Your task to perform on an android device: Clear the shopping cart on costco.com. Search for rayovac triple a on costco.com, select the first entry, and add it to the cart. Image 0: 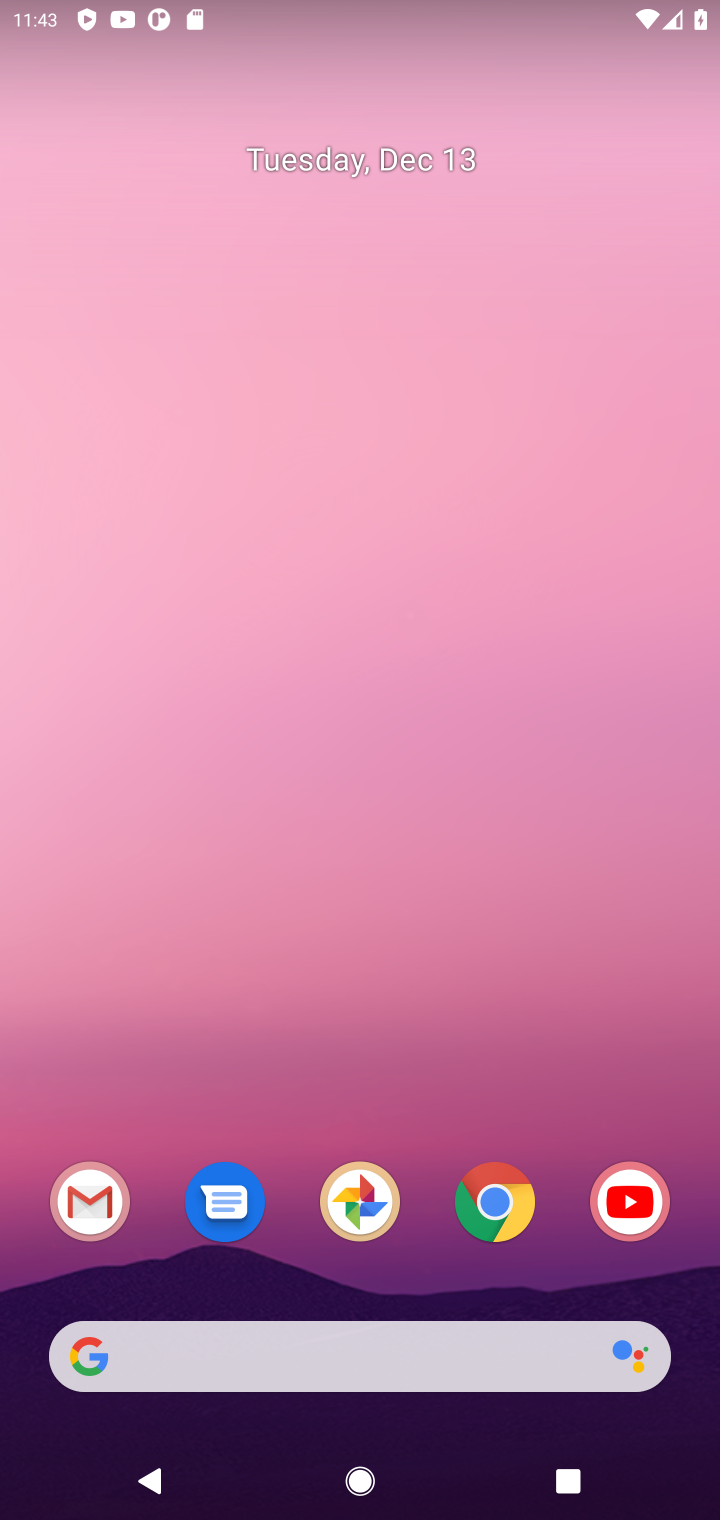
Step 0: click (492, 1215)
Your task to perform on an android device: Clear the shopping cart on costco.com. Search for rayovac triple a on costco.com, select the first entry, and add it to the cart. Image 1: 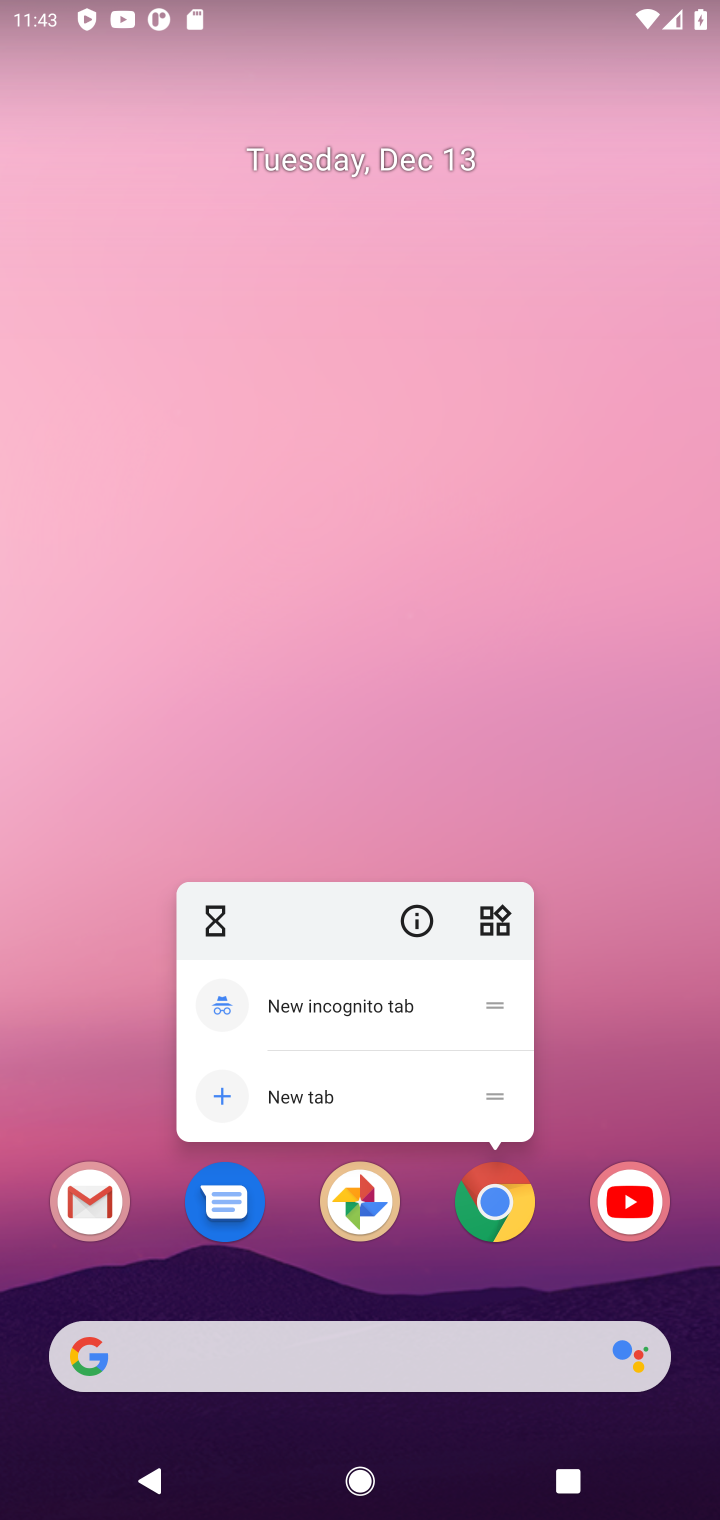
Step 1: click (500, 1196)
Your task to perform on an android device: Clear the shopping cart on costco.com. Search for rayovac triple a on costco.com, select the first entry, and add it to the cart. Image 2: 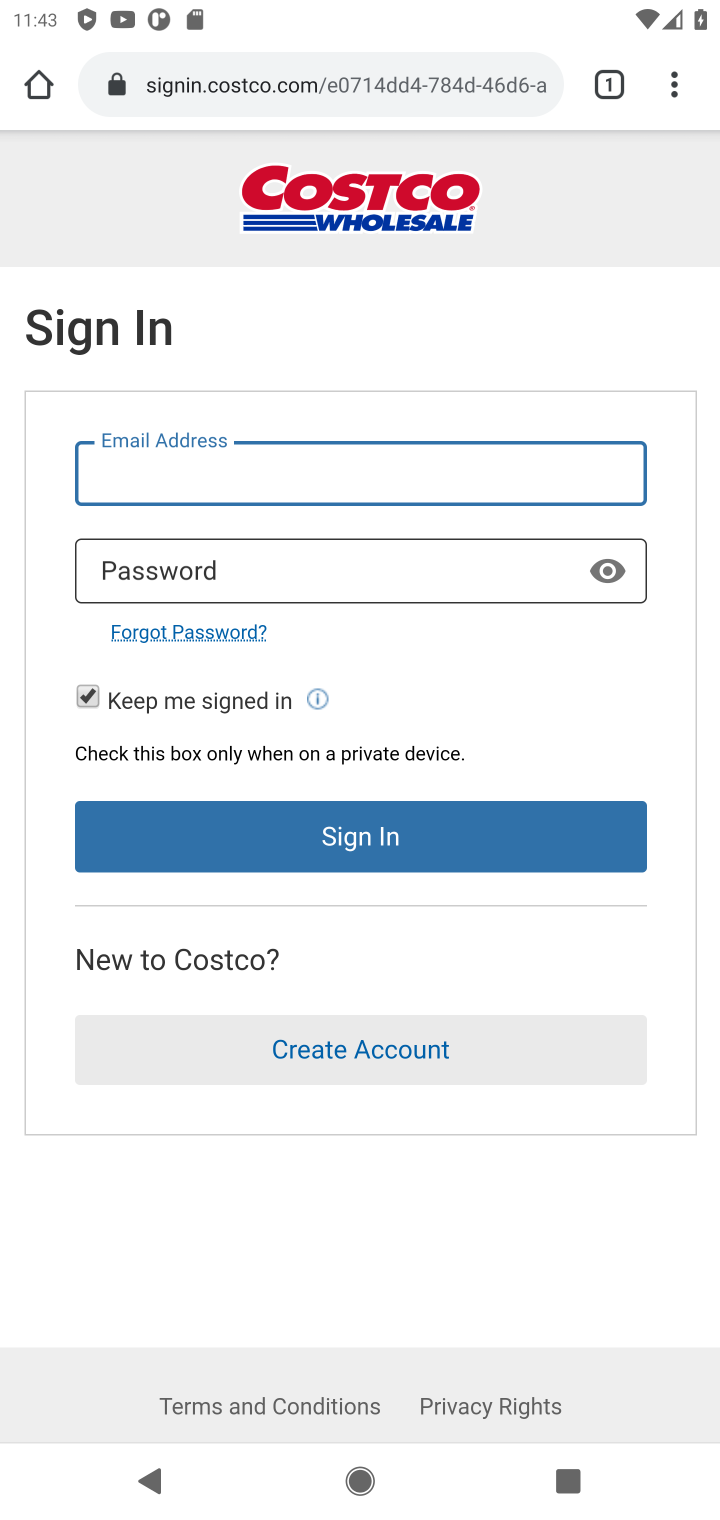
Step 2: click (382, 84)
Your task to perform on an android device: Clear the shopping cart on costco.com. Search for rayovac triple a on costco.com, select the first entry, and add it to the cart. Image 3: 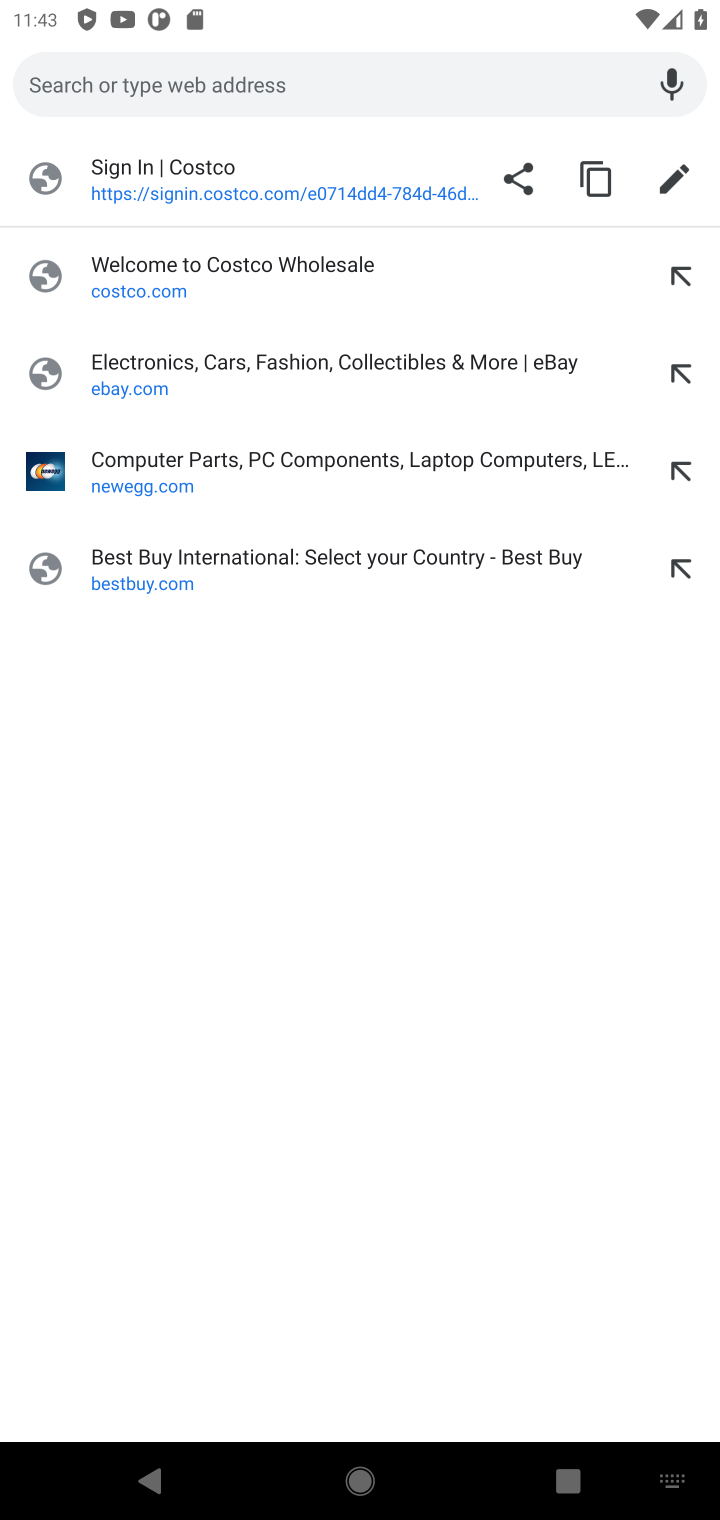
Step 3: click (207, 277)
Your task to perform on an android device: Clear the shopping cart on costco.com. Search for rayovac triple a on costco.com, select the first entry, and add it to the cart. Image 4: 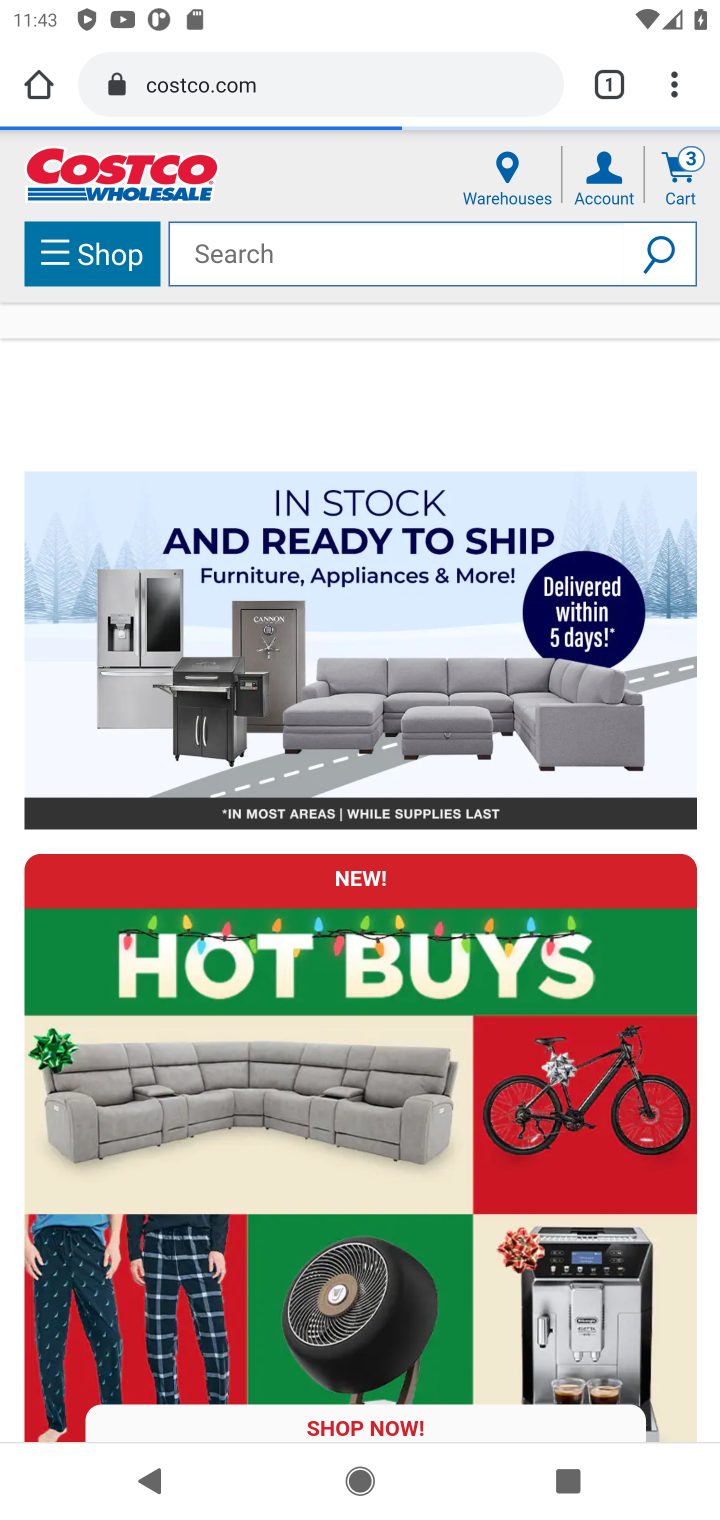
Step 4: click (677, 173)
Your task to perform on an android device: Clear the shopping cart on costco.com. Search for rayovac triple a on costco.com, select the first entry, and add it to the cart. Image 5: 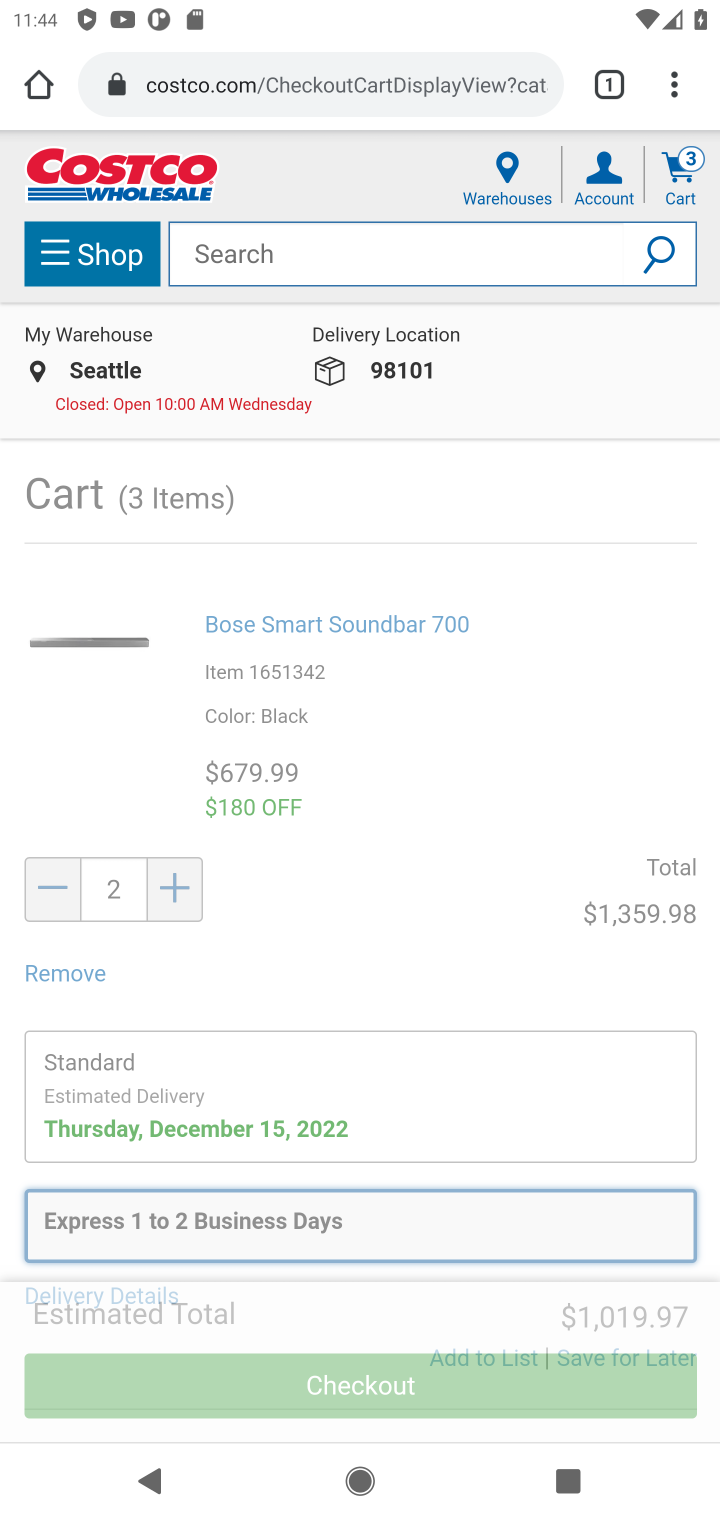
Step 5: click (55, 975)
Your task to perform on an android device: Clear the shopping cart on costco.com. Search for rayovac triple a on costco.com, select the first entry, and add it to the cart. Image 6: 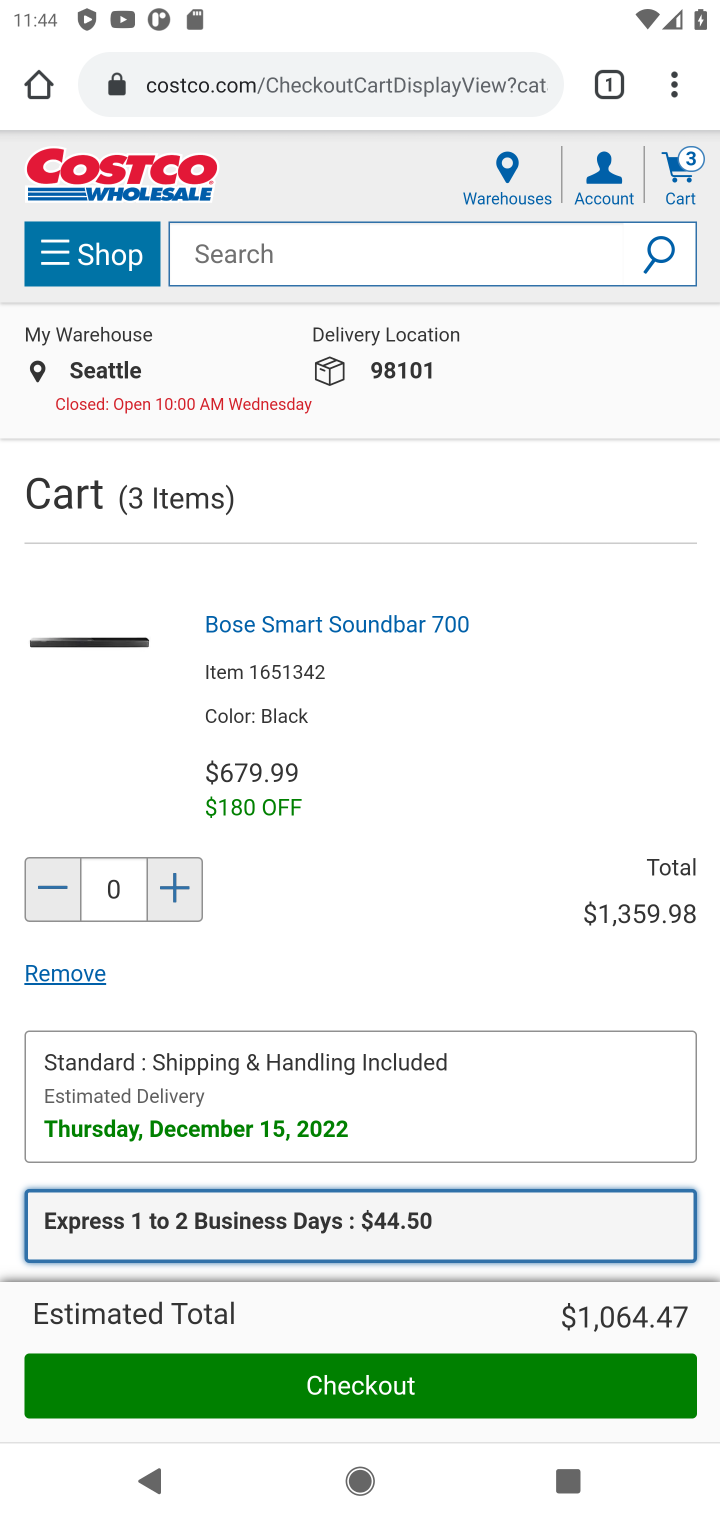
Step 6: click (55, 975)
Your task to perform on an android device: Clear the shopping cart on costco.com. Search for rayovac triple a on costco.com, select the first entry, and add it to the cart. Image 7: 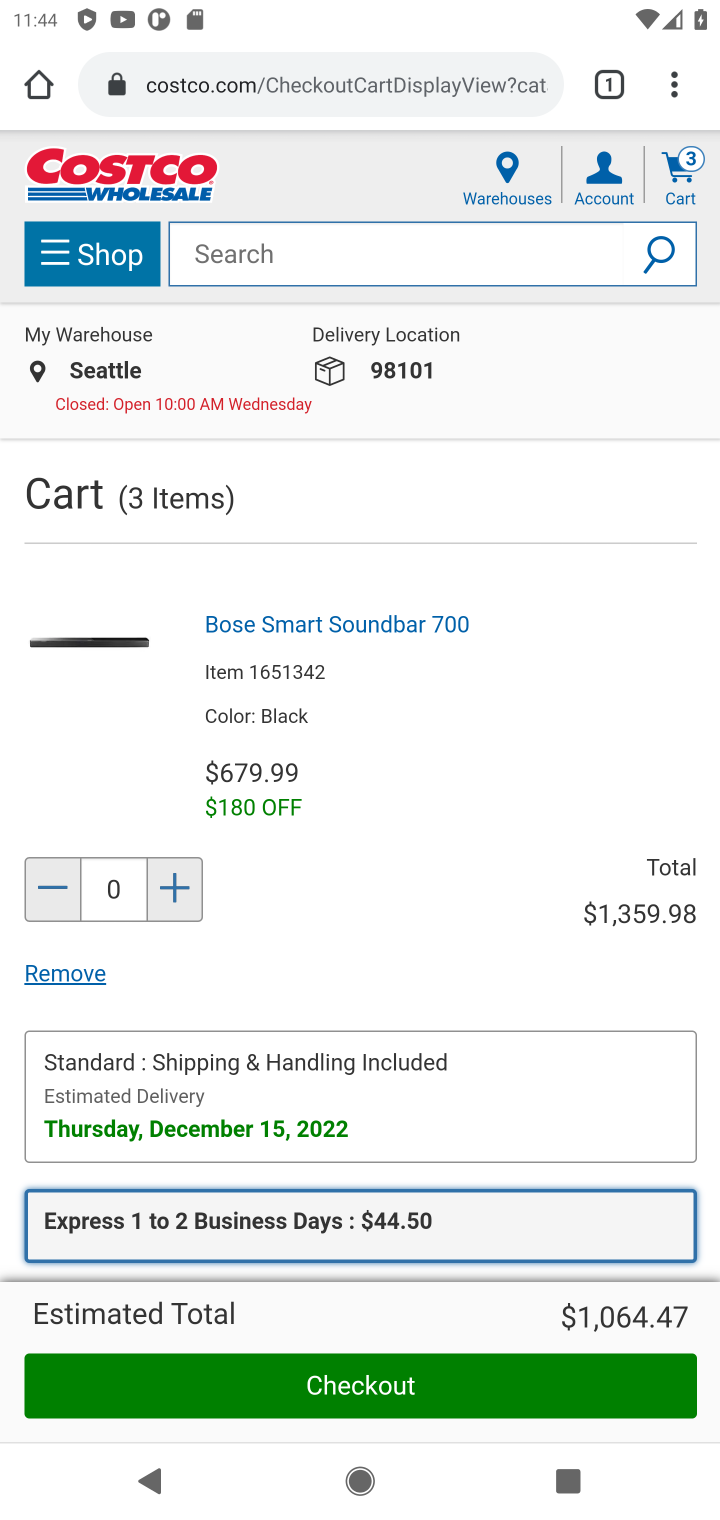
Step 7: click (55, 975)
Your task to perform on an android device: Clear the shopping cart on costco.com. Search for rayovac triple a on costco.com, select the first entry, and add it to the cart. Image 8: 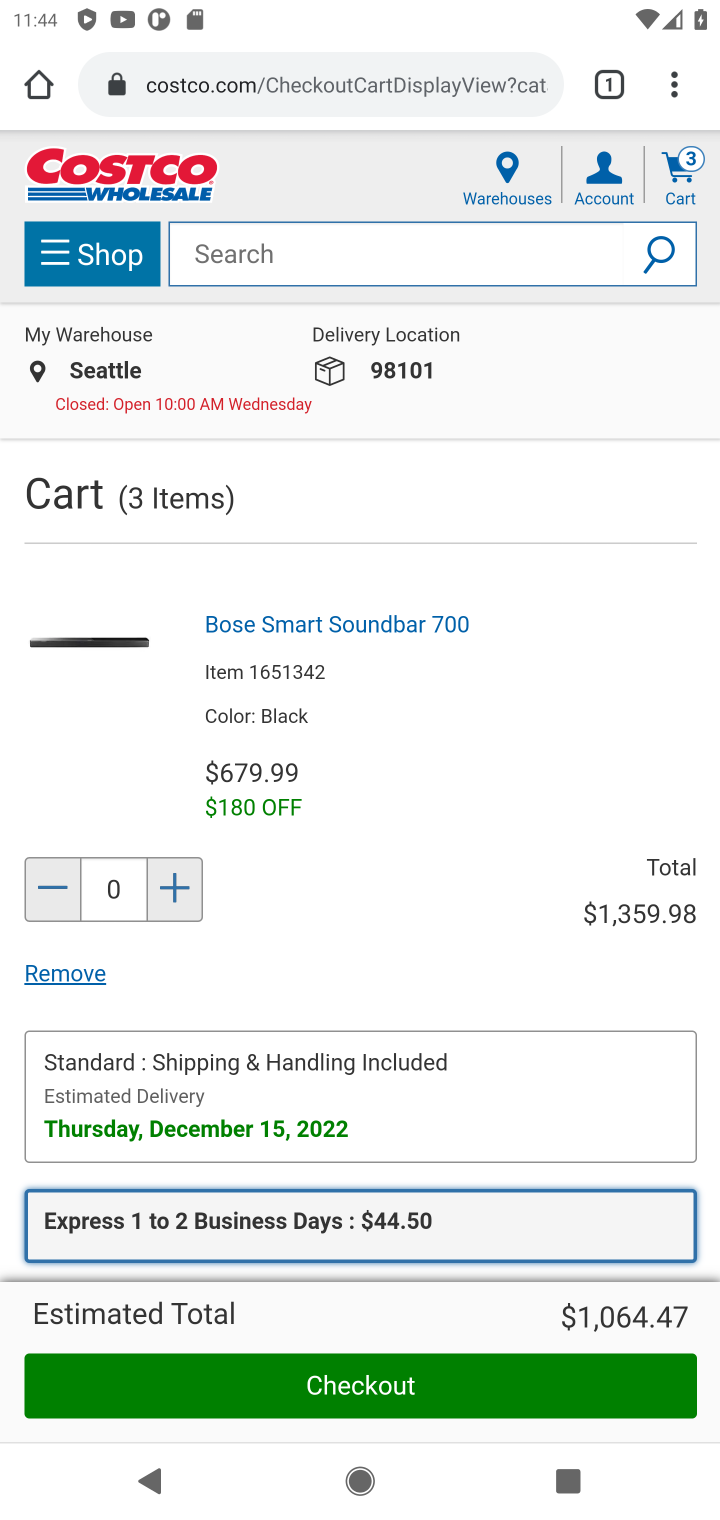
Step 8: click (55, 975)
Your task to perform on an android device: Clear the shopping cart on costco.com. Search for rayovac triple a on costco.com, select the first entry, and add it to the cart. Image 9: 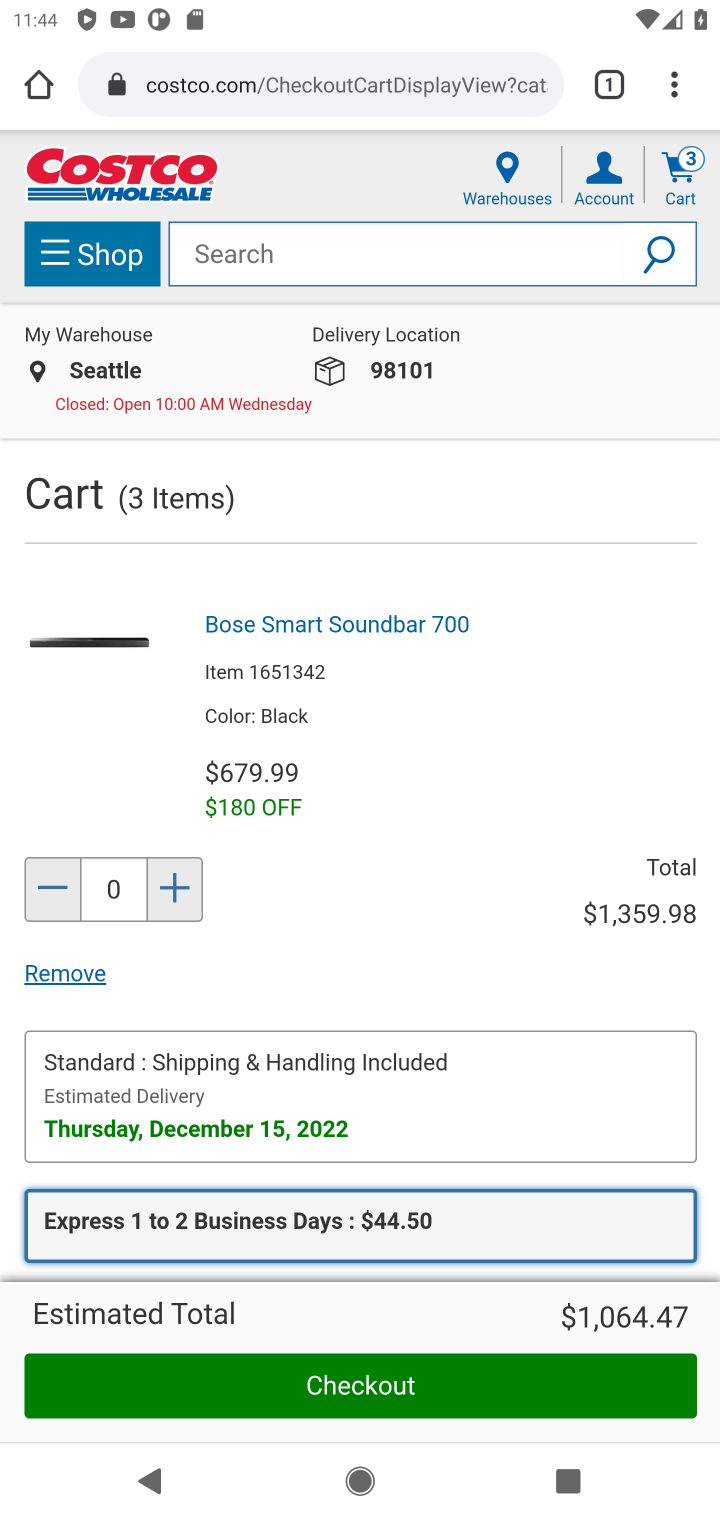
Step 9: task complete